Your task to perform on an android device: Where can I buy a nice beach towel? Image 0: 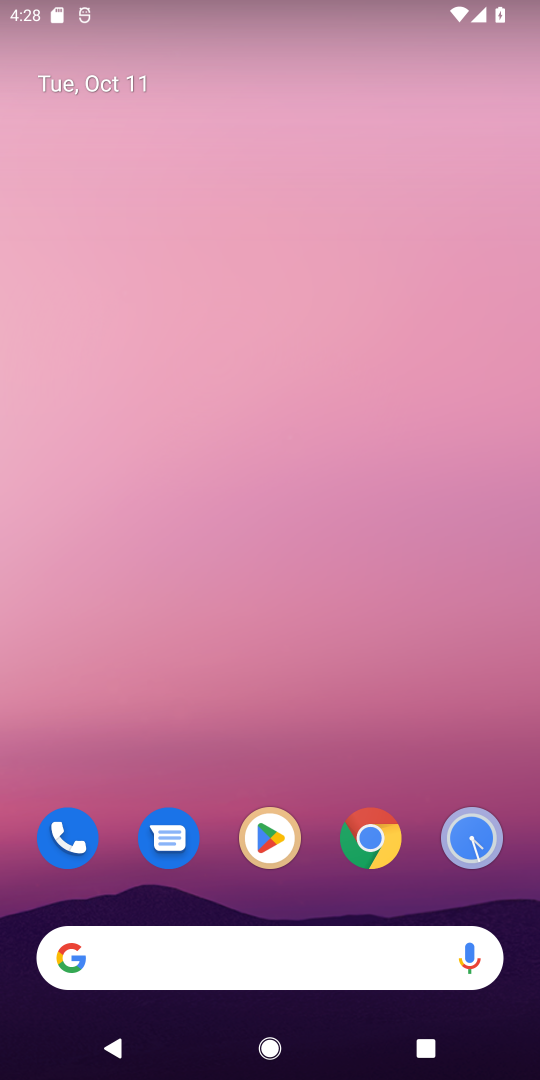
Step 0: click (365, 847)
Your task to perform on an android device: Where can I buy a nice beach towel? Image 1: 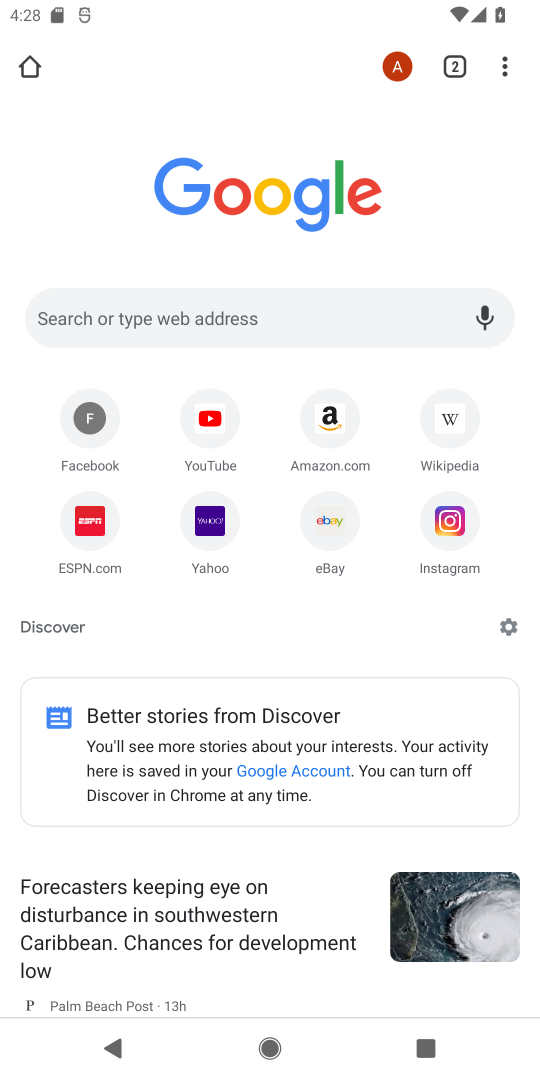
Step 1: click (290, 315)
Your task to perform on an android device: Where can I buy a nice beach towel? Image 2: 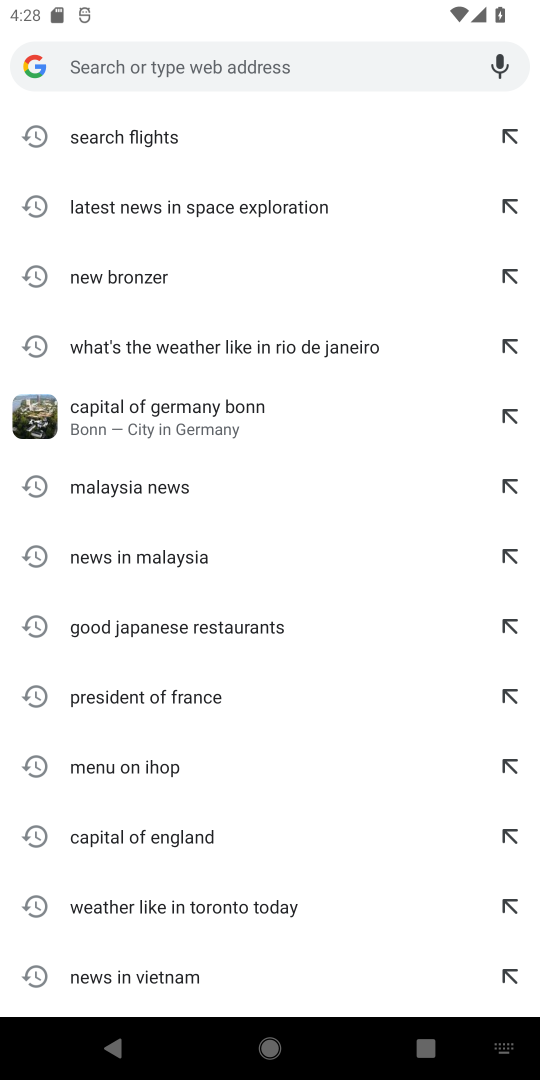
Step 2: type "nice beach towel"
Your task to perform on an android device: Where can I buy a nice beach towel? Image 3: 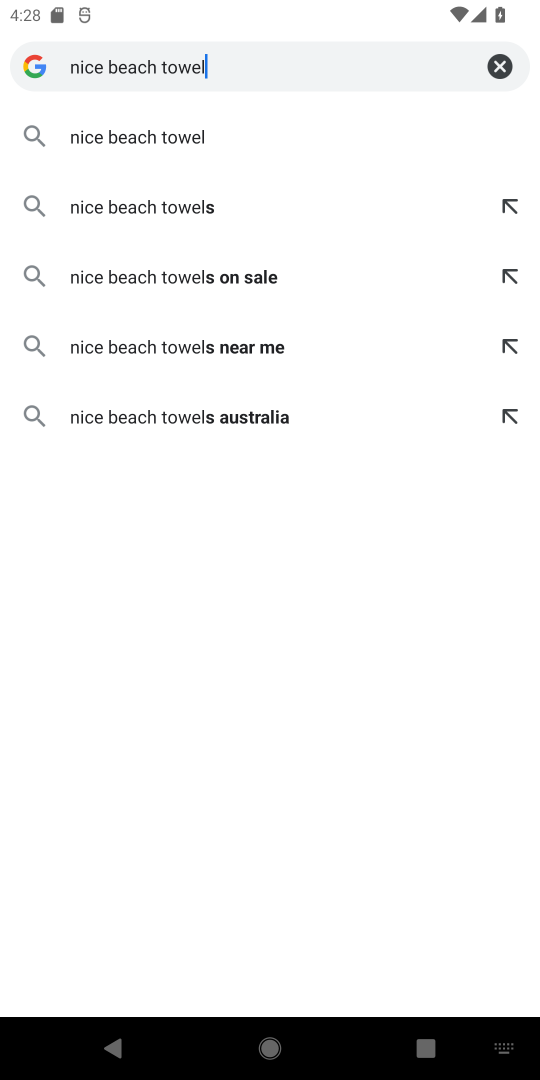
Step 3: click (190, 130)
Your task to perform on an android device: Where can I buy a nice beach towel? Image 4: 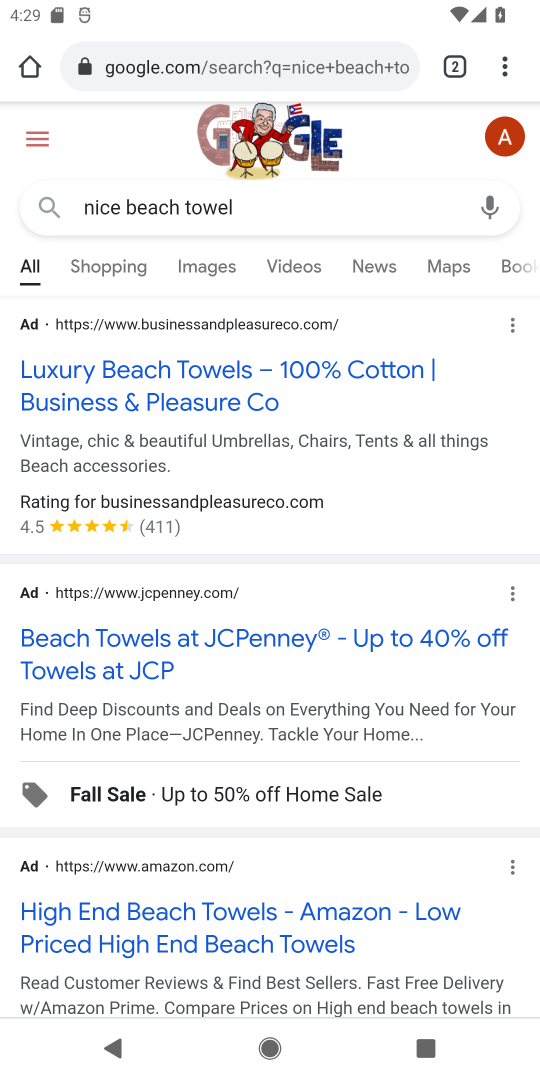
Step 4: click (144, 367)
Your task to perform on an android device: Where can I buy a nice beach towel? Image 5: 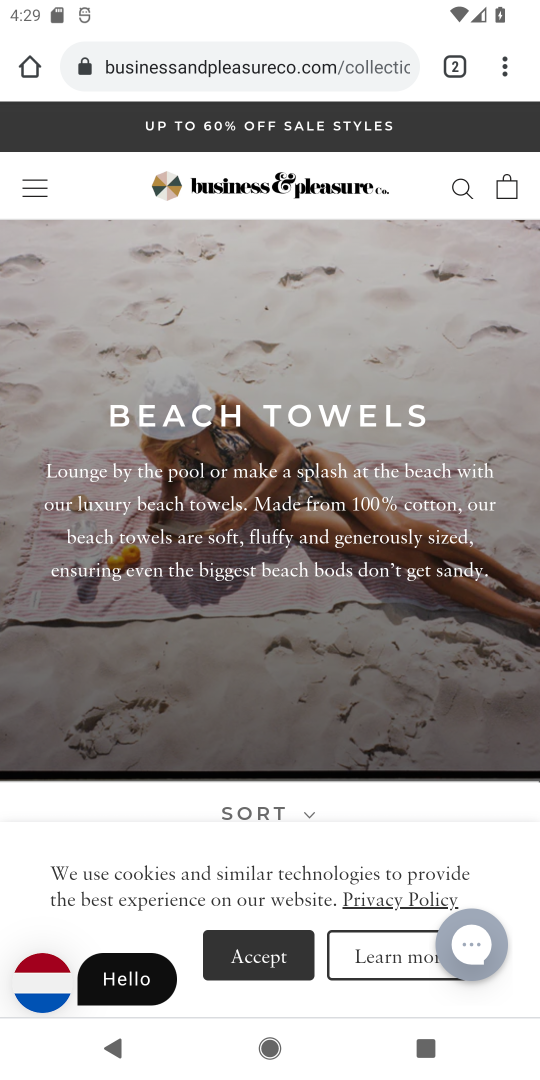
Step 5: drag from (232, 712) to (293, 374)
Your task to perform on an android device: Where can I buy a nice beach towel? Image 6: 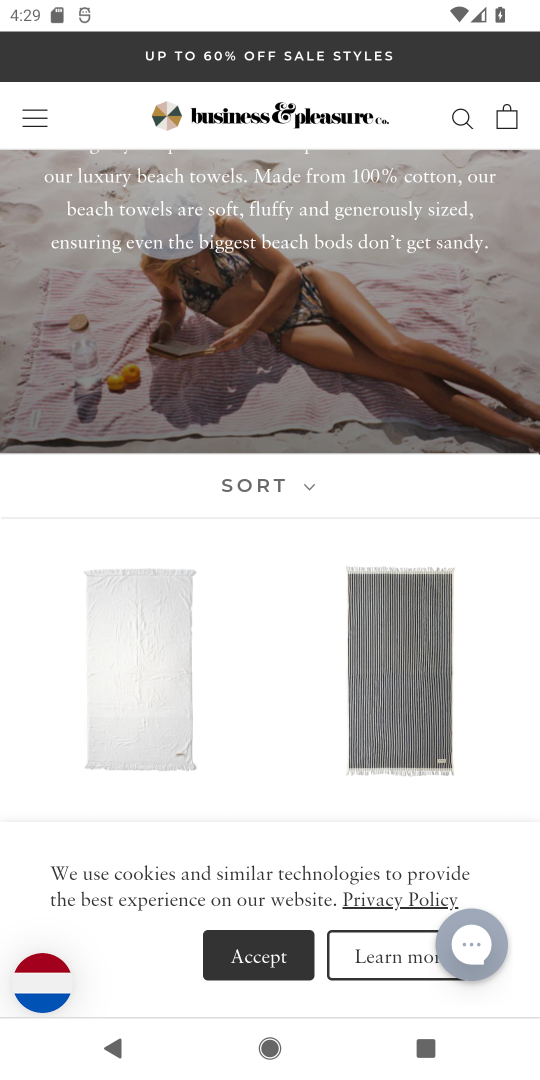
Step 6: click (431, 372)
Your task to perform on an android device: Where can I buy a nice beach towel? Image 7: 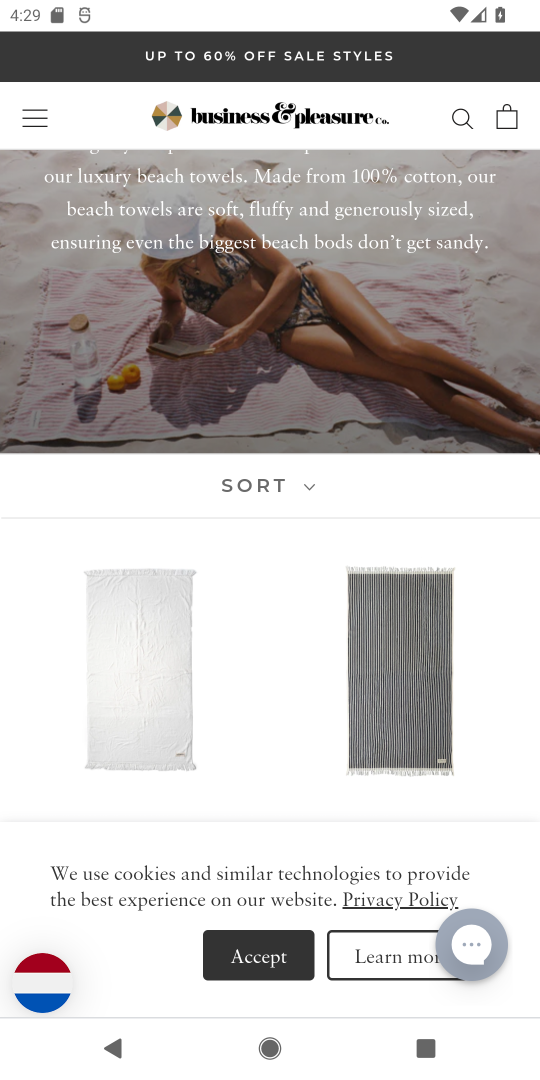
Step 7: click (259, 959)
Your task to perform on an android device: Where can I buy a nice beach towel? Image 8: 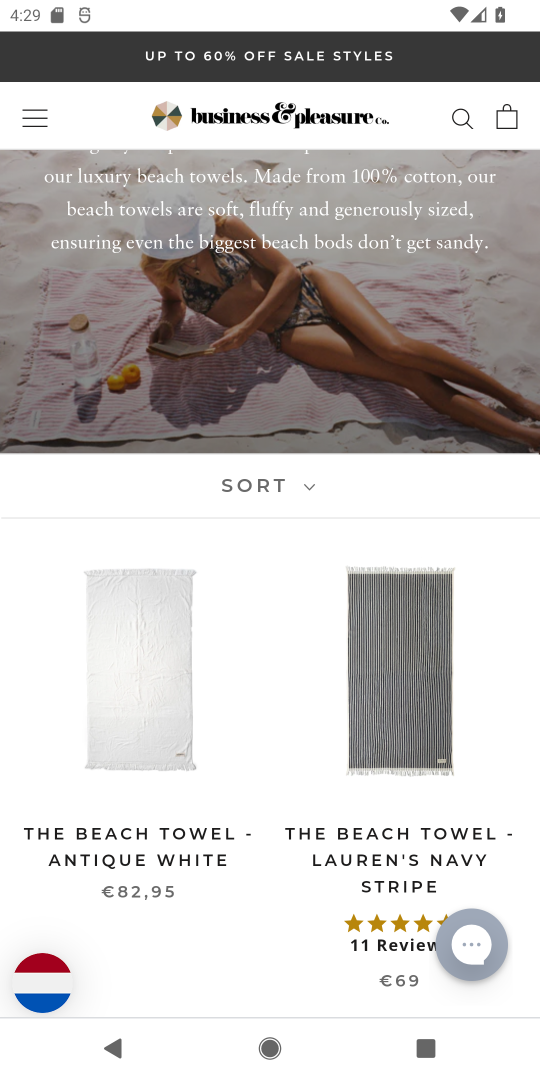
Step 8: task complete